Your task to perform on an android device: turn off airplane mode Image 0: 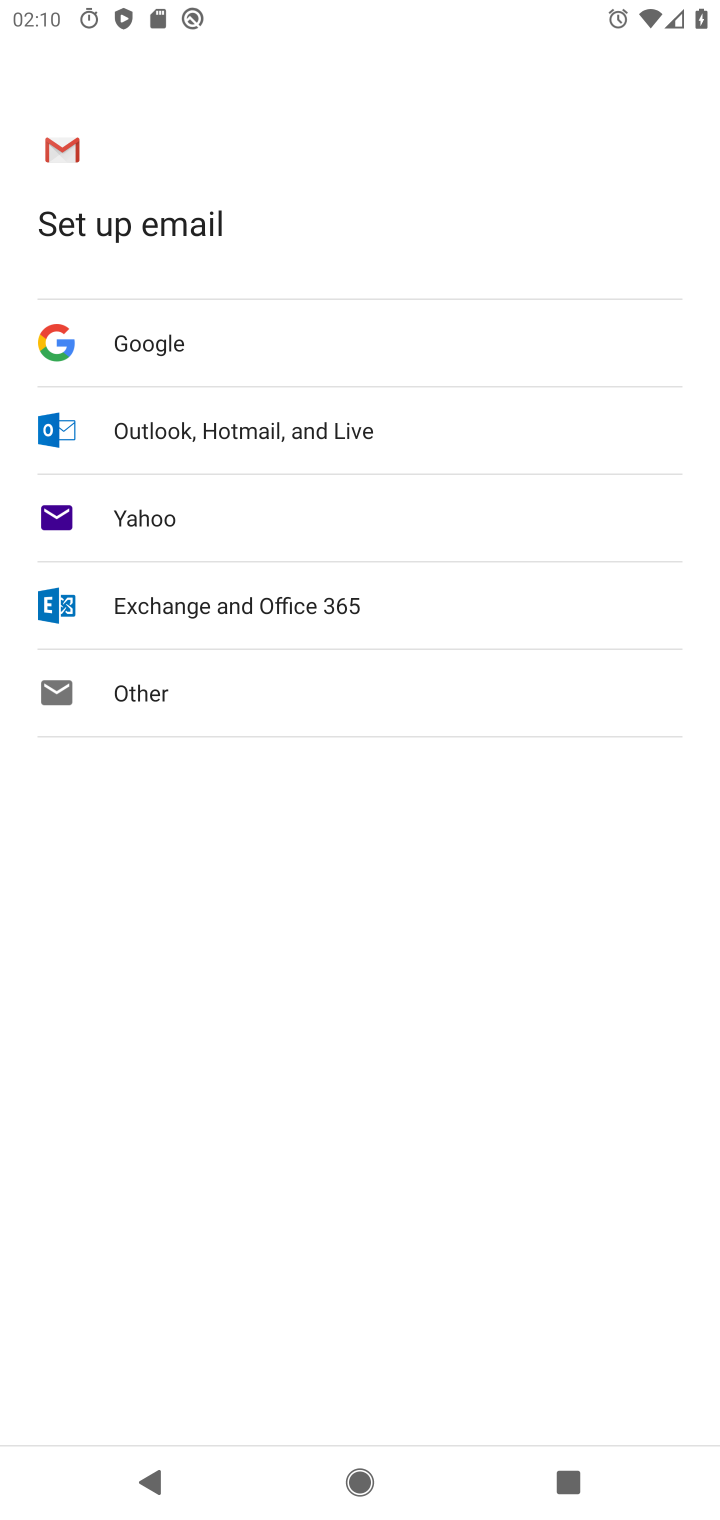
Step 0: press home button
Your task to perform on an android device: turn off airplane mode Image 1: 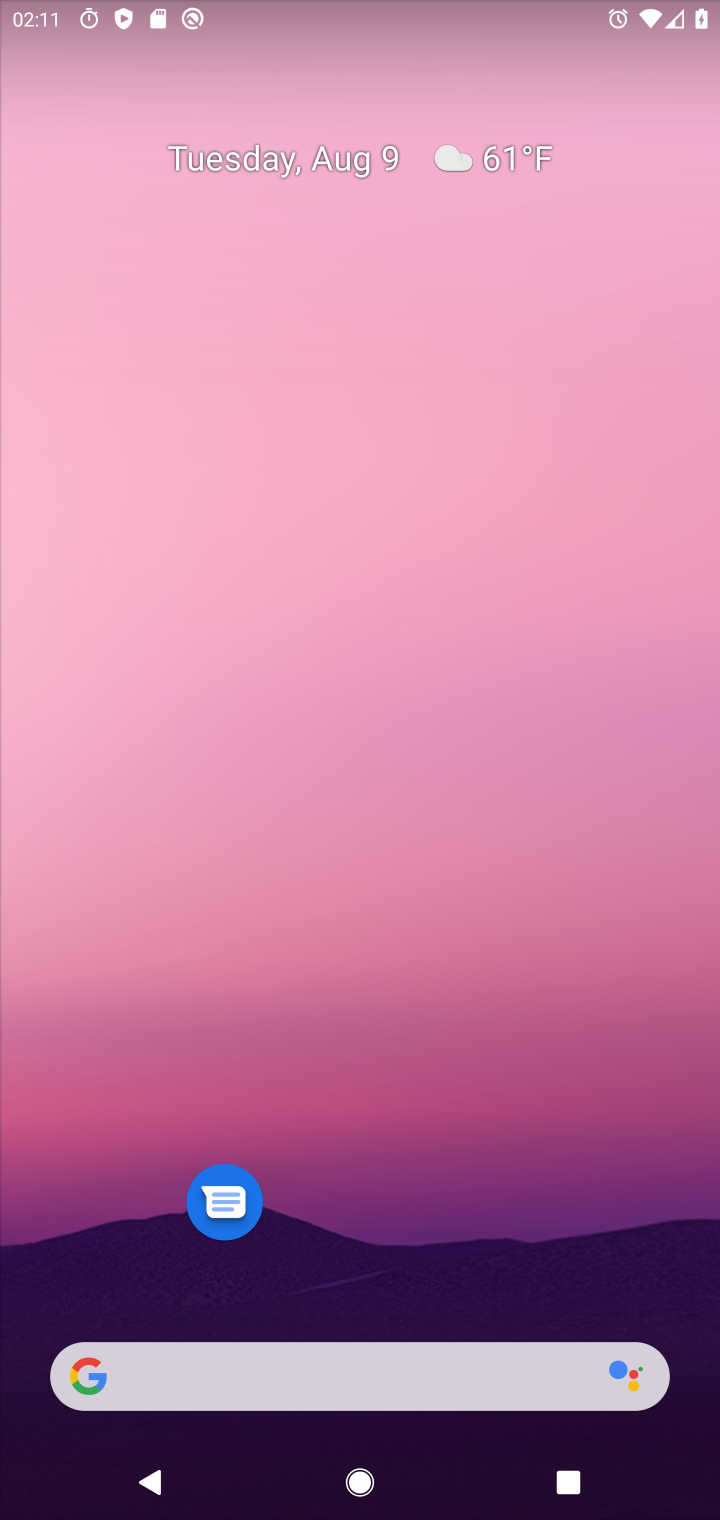
Step 1: click (385, 6)
Your task to perform on an android device: turn off airplane mode Image 2: 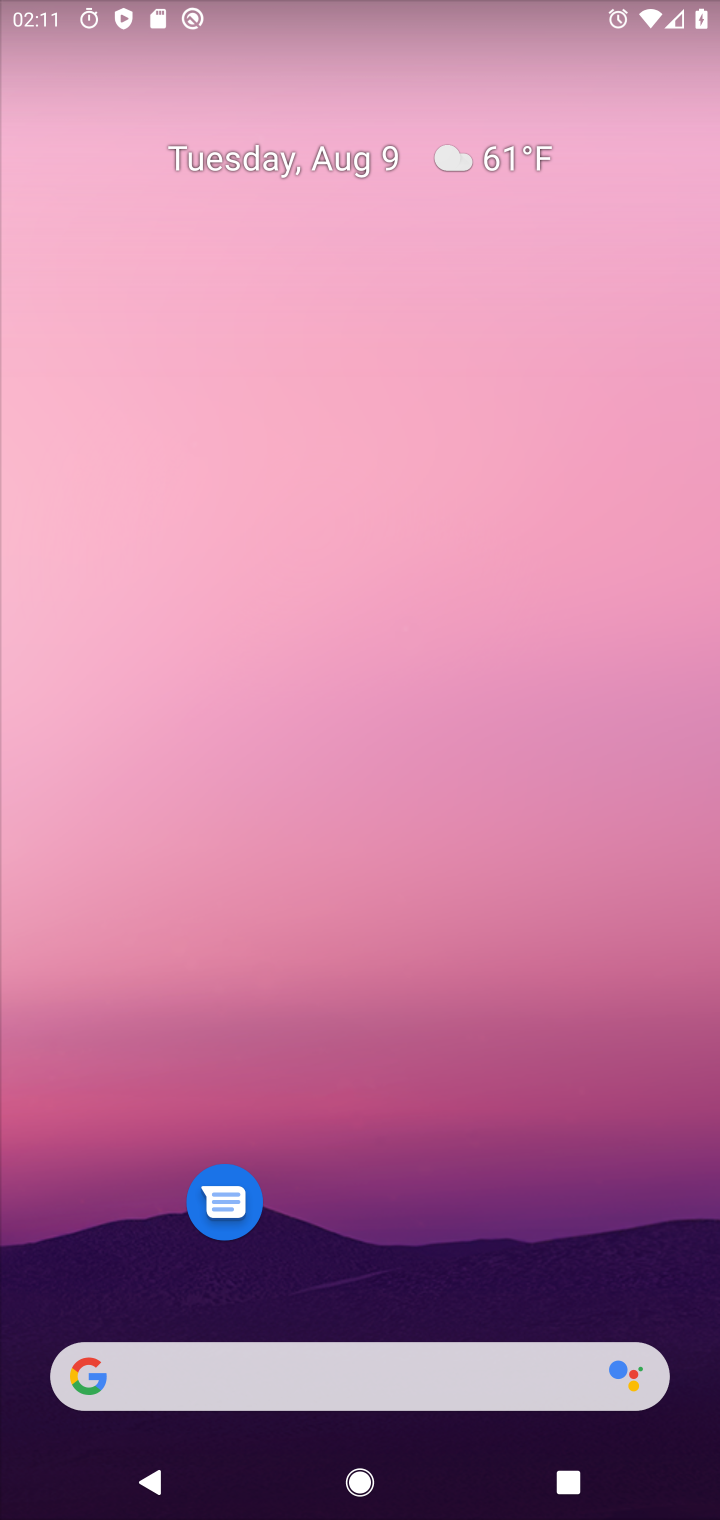
Step 2: drag from (287, 1393) to (317, 271)
Your task to perform on an android device: turn off airplane mode Image 3: 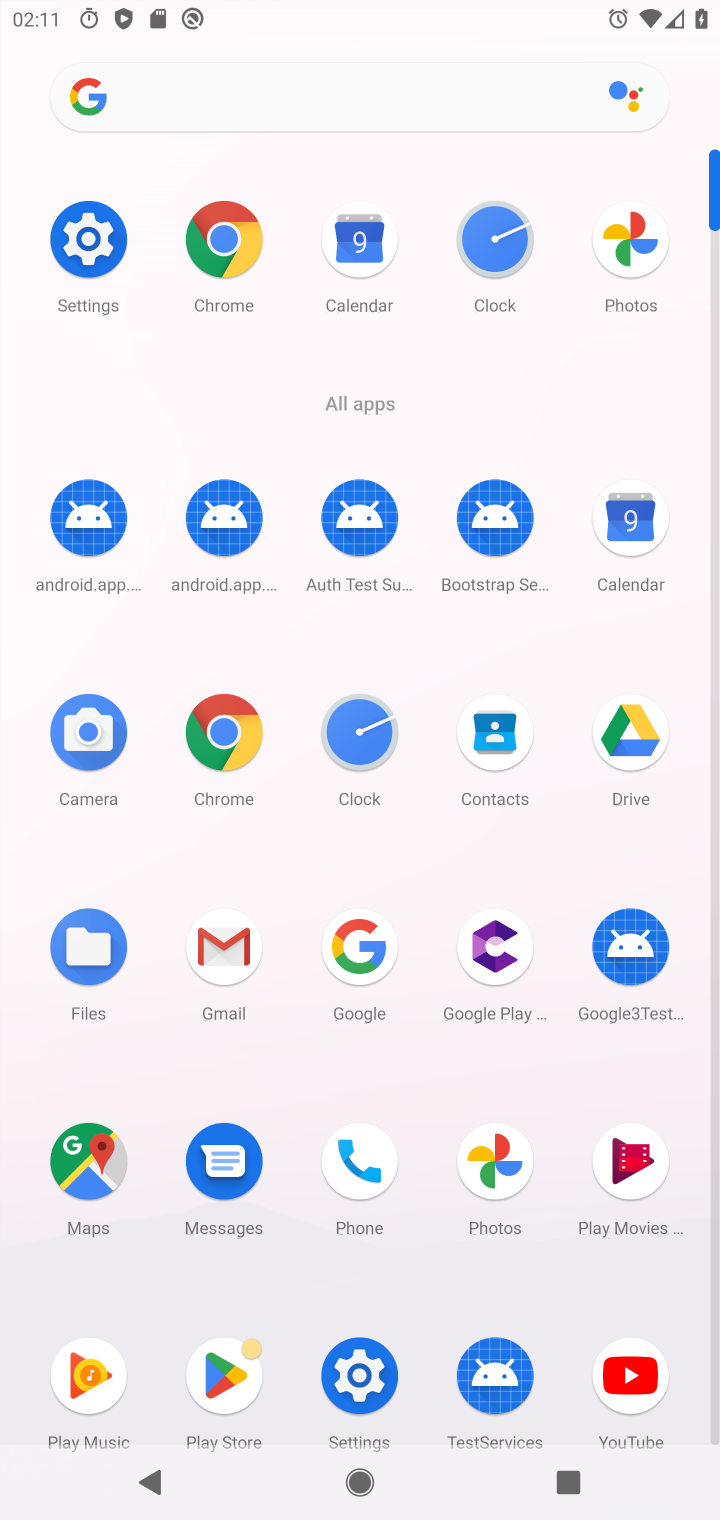
Step 3: click (75, 235)
Your task to perform on an android device: turn off airplane mode Image 4: 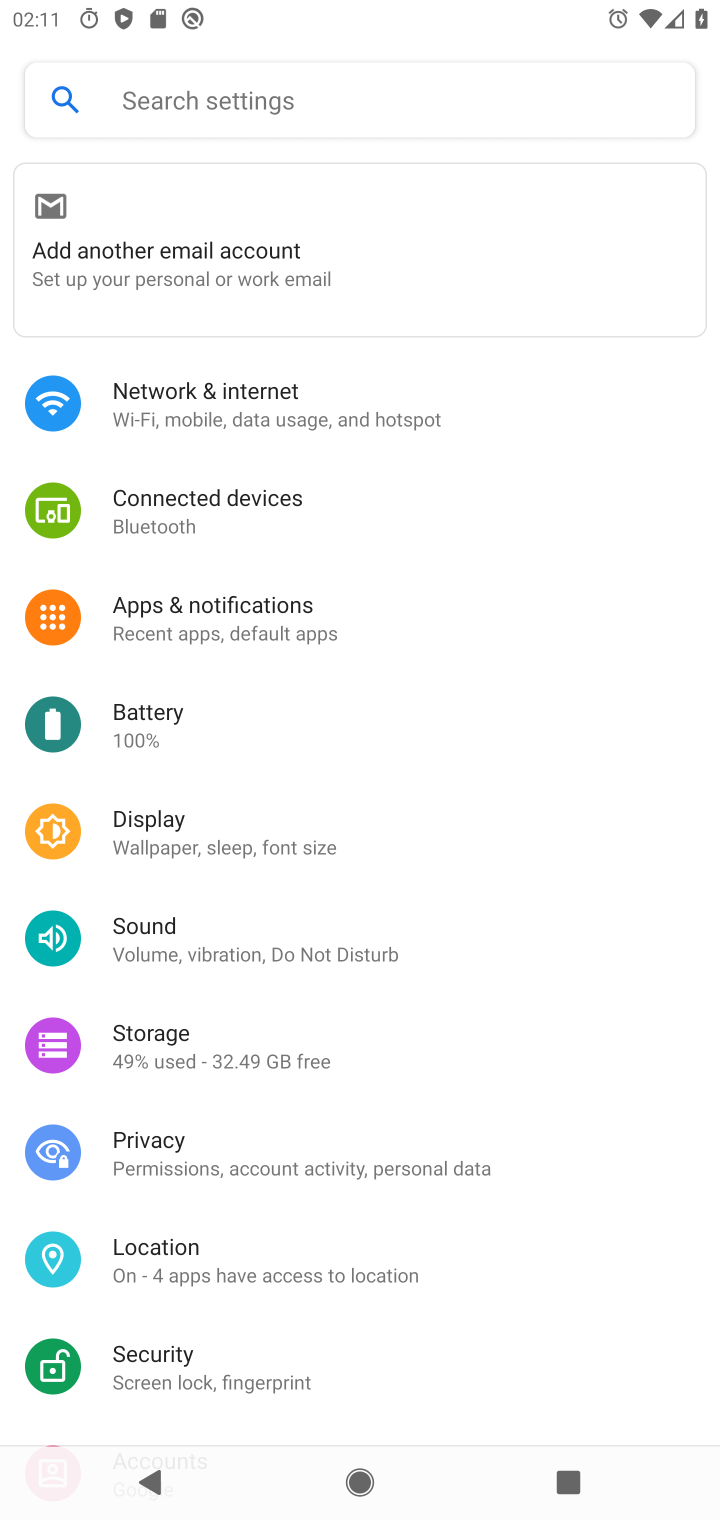
Step 4: click (250, 427)
Your task to perform on an android device: turn off airplane mode Image 5: 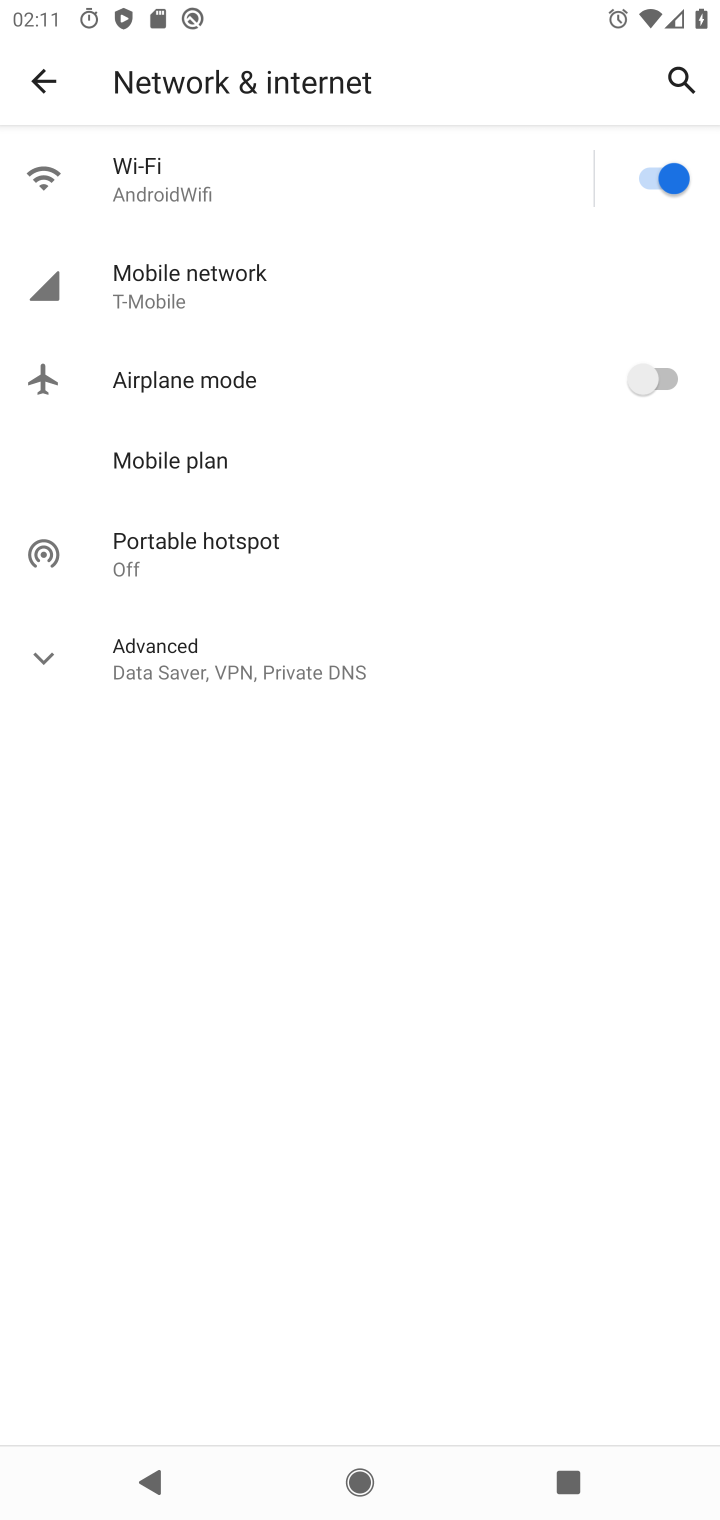
Step 5: task complete